Your task to perform on an android device: Go to accessibility settings Image 0: 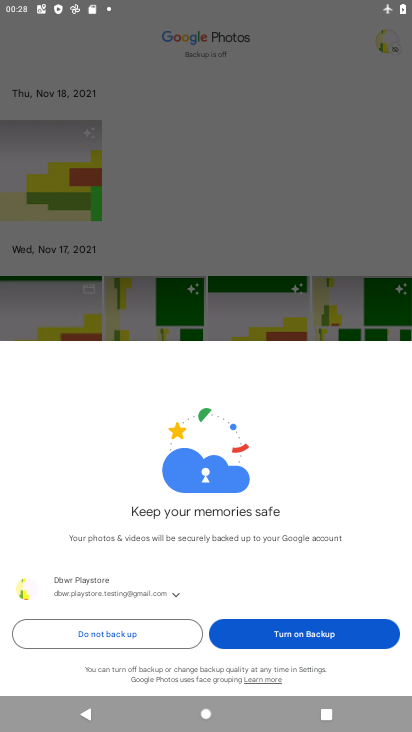
Step 0: press home button
Your task to perform on an android device: Go to accessibility settings Image 1: 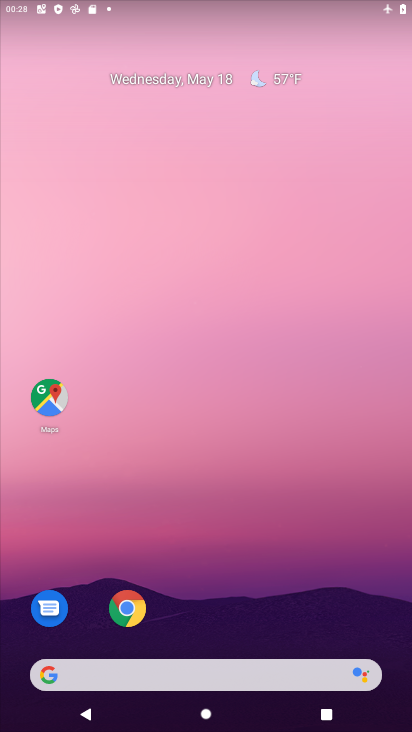
Step 1: drag from (213, 566) to (110, 58)
Your task to perform on an android device: Go to accessibility settings Image 2: 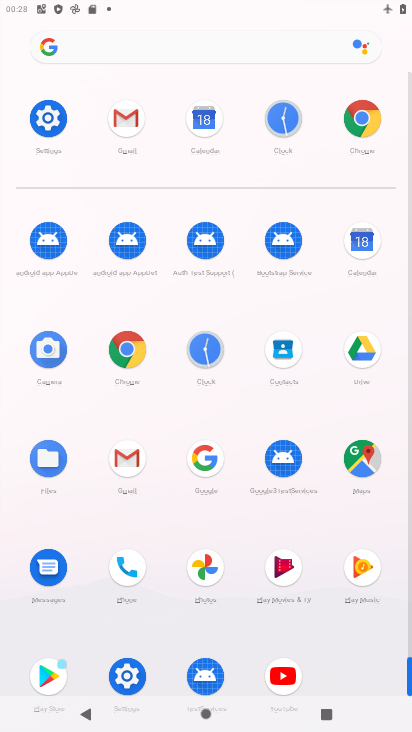
Step 2: click (44, 117)
Your task to perform on an android device: Go to accessibility settings Image 3: 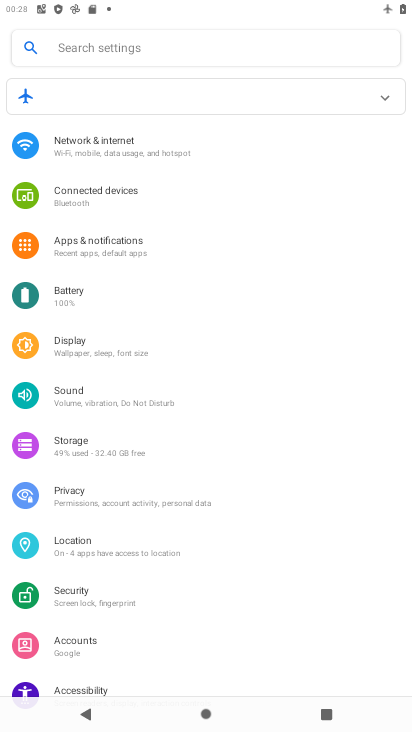
Step 3: drag from (227, 570) to (193, 313)
Your task to perform on an android device: Go to accessibility settings Image 4: 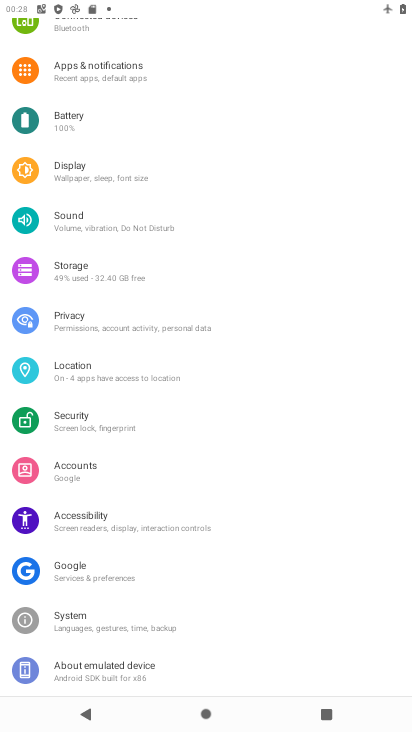
Step 4: click (87, 512)
Your task to perform on an android device: Go to accessibility settings Image 5: 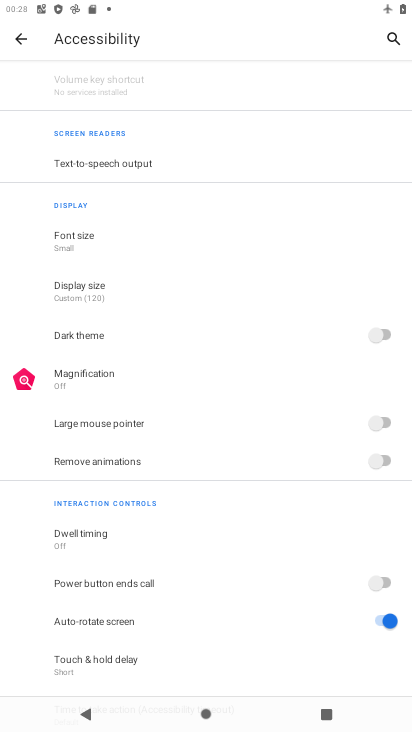
Step 5: task complete